Your task to perform on an android device: check battery use Image 0: 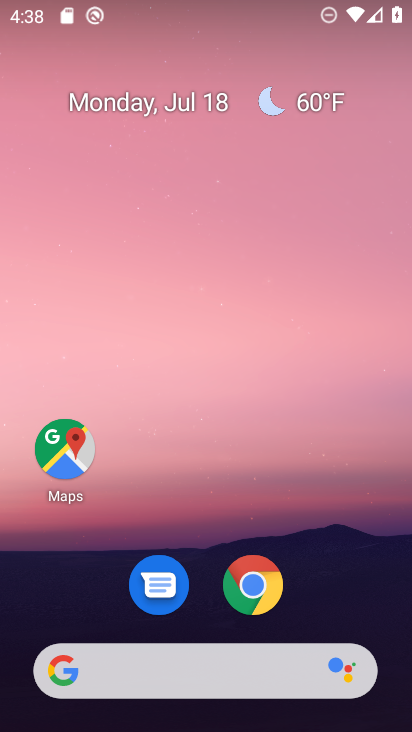
Step 0: drag from (323, 598) to (343, 31)
Your task to perform on an android device: check battery use Image 1: 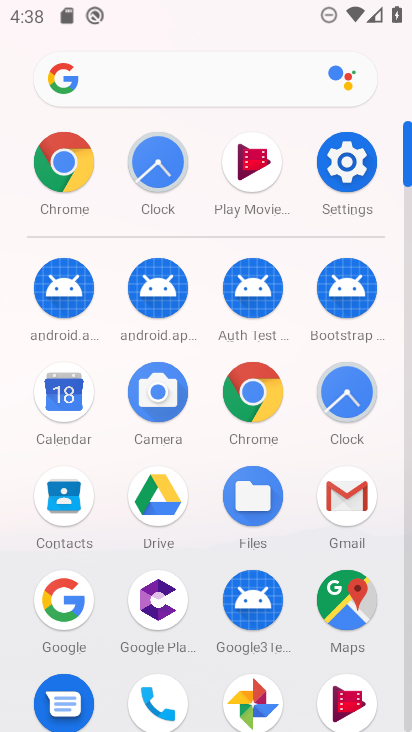
Step 1: click (353, 168)
Your task to perform on an android device: check battery use Image 2: 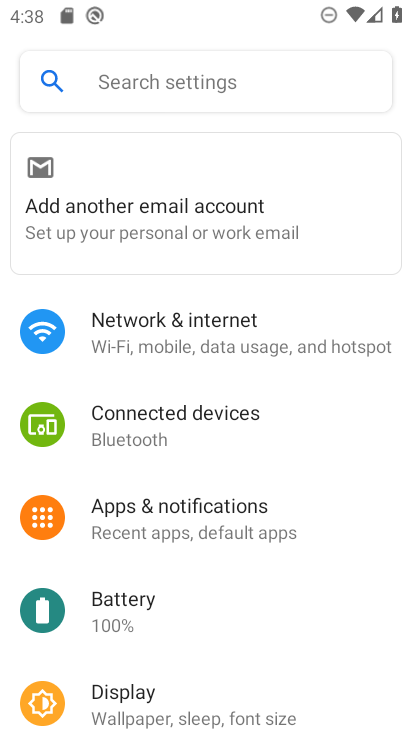
Step 2: click (147, 603)
Your task to perform on an android device: check battery use Image 3: 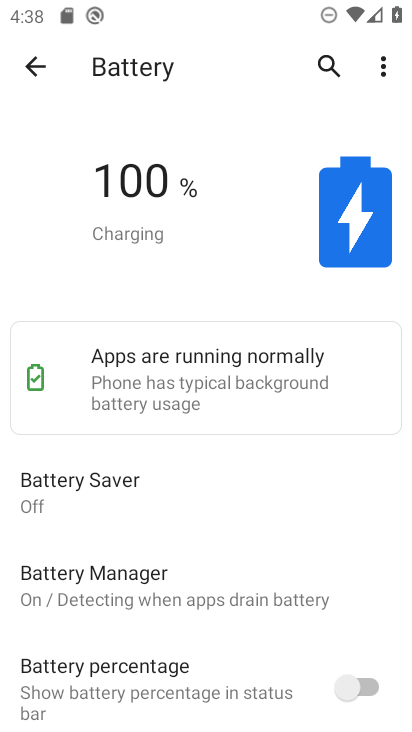
Step 3: drag from (160, 568) to (231, 196)
Your task to perform on an android device: check battery use Image 4: 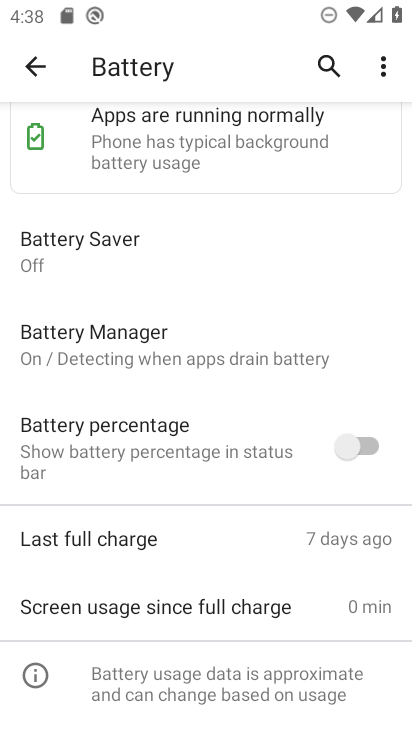
Step 4: drag from (220, 330) to (226, 654)
Your task to perform on an android device: check battery use Image 5: 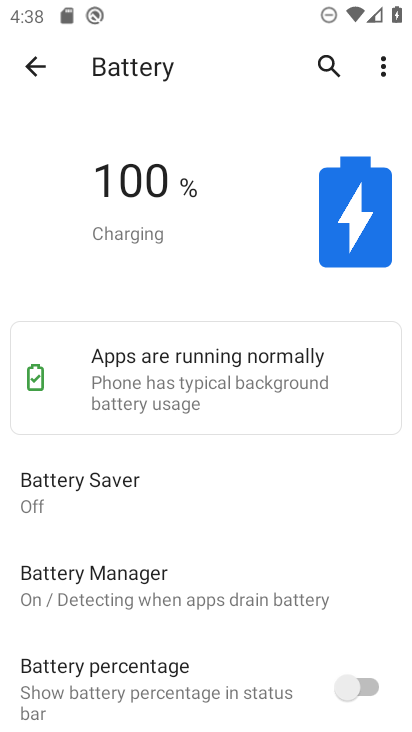
Step 5: click (383, 64)
Your task to perform on an android device: check battery use Image 6: 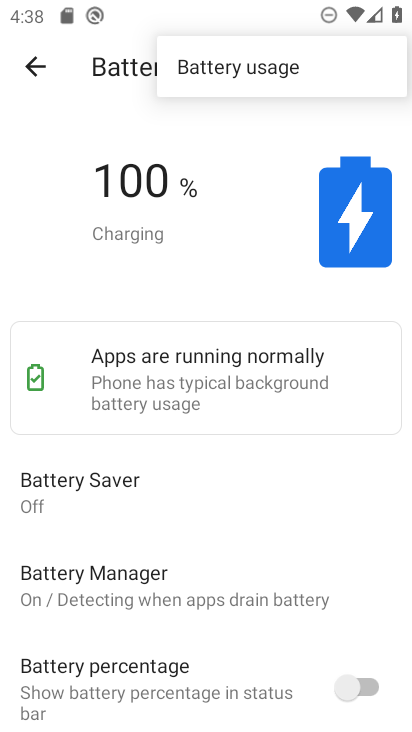
Step 6: click (281, 59)
Your task to perform on an android device: check battery use Image 7: 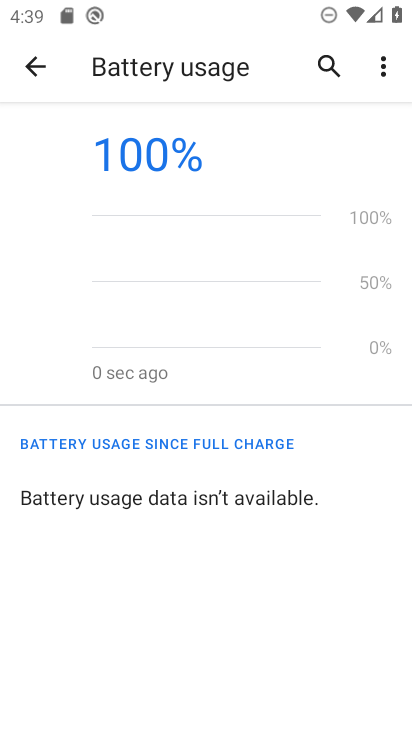
Step 7: task complete